Your task to perform on an android device: Go to calendar. Show me events next week Image 0: 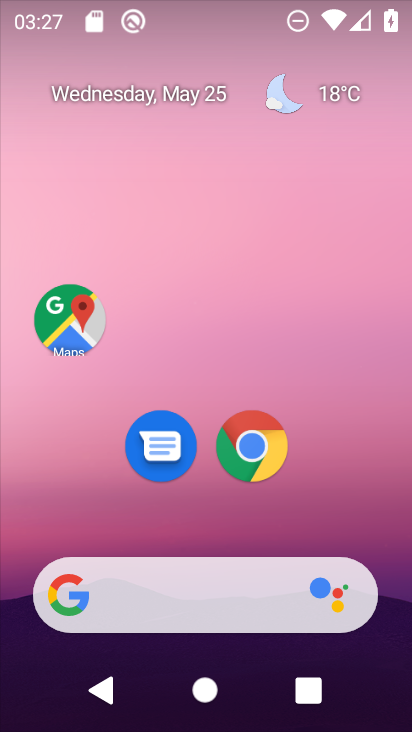
Step 0: drag from (221, 568) to (214, 181)
Your task to perform on an android device: Go to calendar. Show me events next week Image 1: 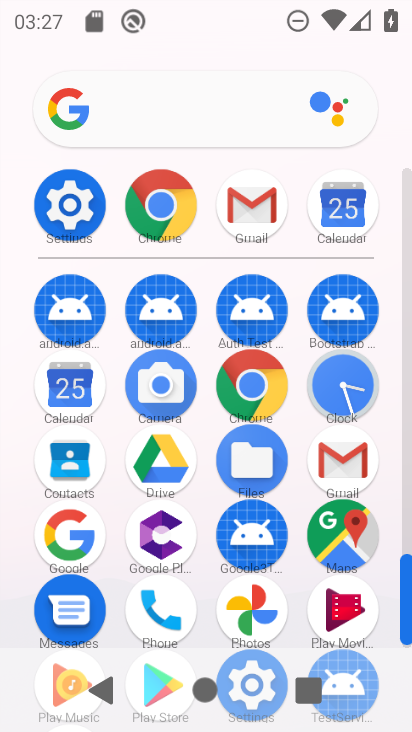
Step 1: click (73, 397)
Your task to perform on an android device: Go to calendar. Show me events next week Image 2: 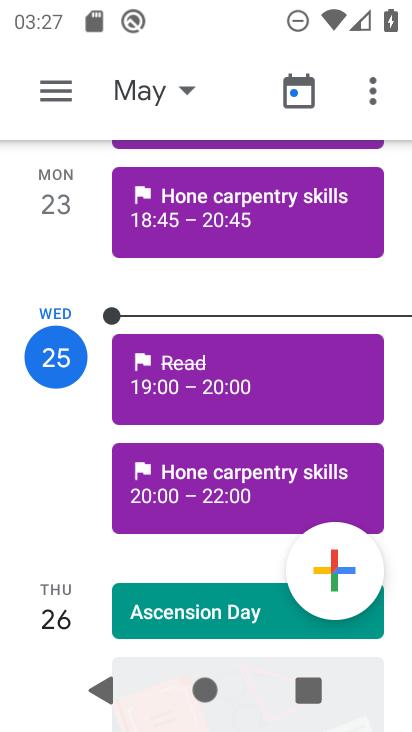
Step 2: click (50, 111)
Your task to perform on an android device: Go to calendar. Show me events next week Image 3: 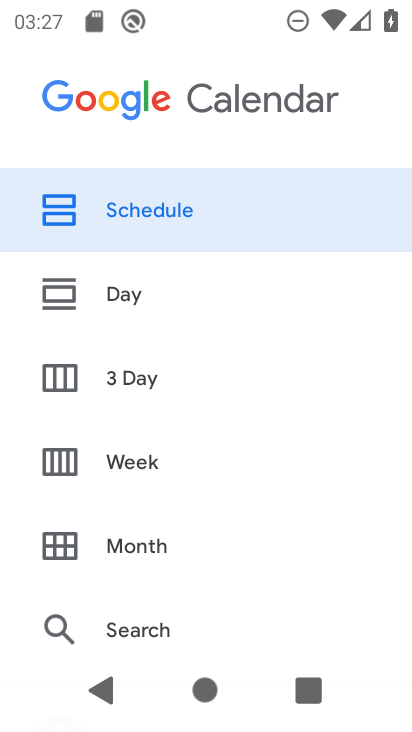
Step 3: click (126, 458)
Your task to perform on an android device: Go to calendar. Show me events next week Image 4: 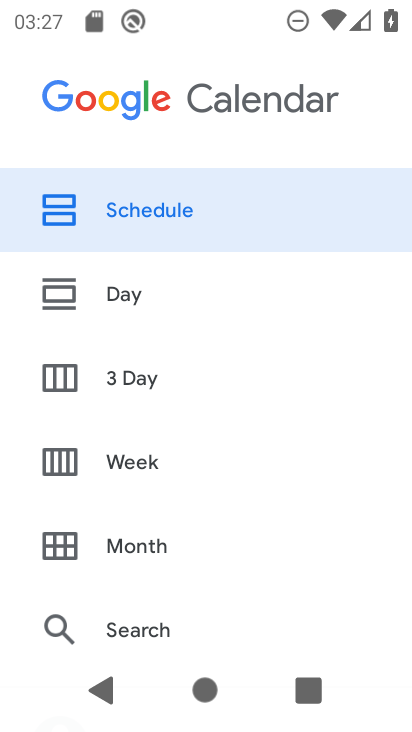
Step 4: click (164, 475)
Your task to perform on an android device: Go to calendar. Show me events next week Image 5: 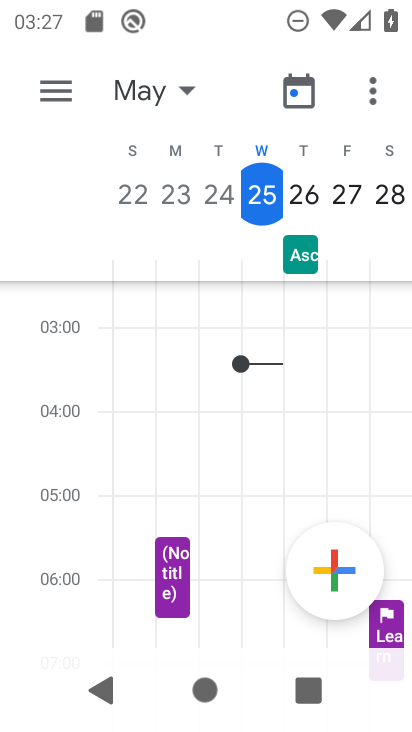
Step 5: click (61, 92)
Your task to perform on an android device: Go to calendar. Show me events next week Image 6: 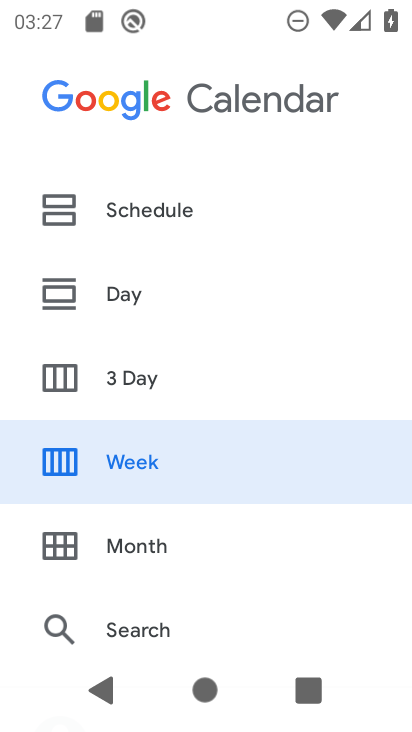
Step 6: click (149, 456)
Your task to perform on an android device: Go to calendar. Show me events next week Image 7: 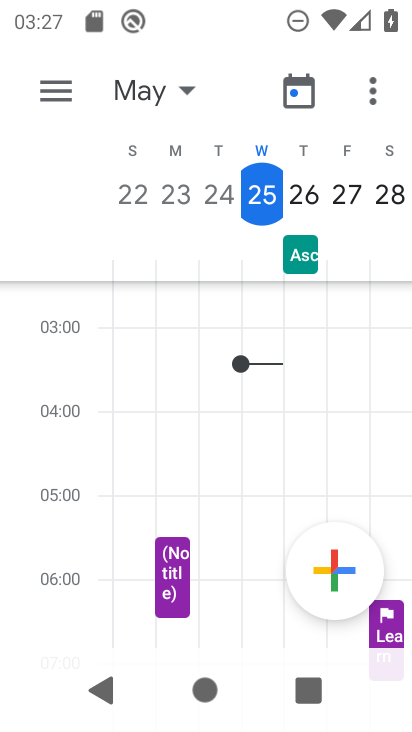
Step 7: task complete